Your task to perform on an android device: move an email to a new category in the gmail app Image 0: 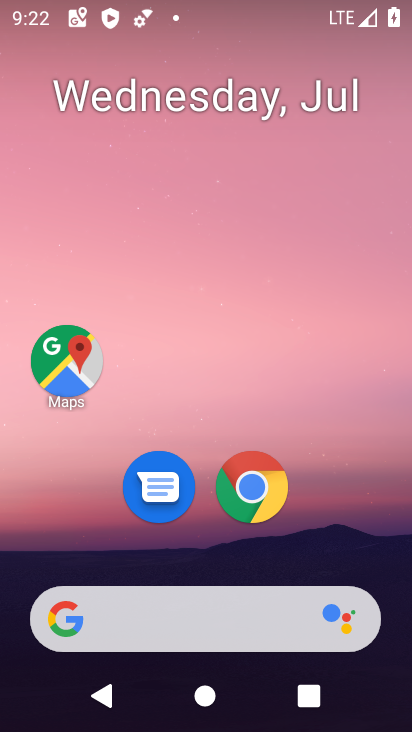
Step 0: drag from (223, 555) to (153, 85)
Your task to perform on an android device: move an email to a new category in the gmail app Image 1: 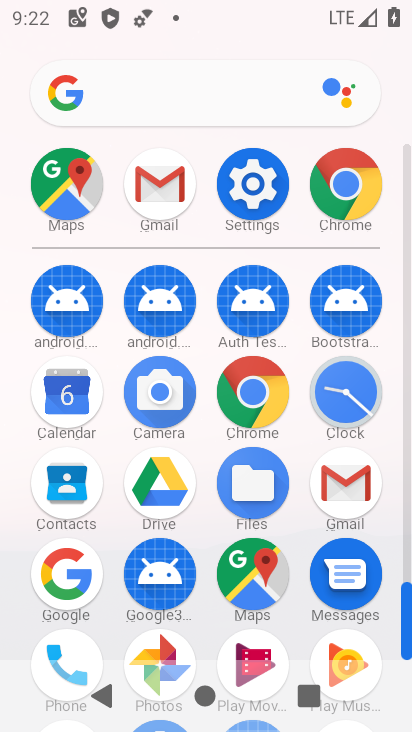
Step 1: click (360, 493)
Your task to perform on an android device: move an email to a new category in the gmail app Image 2: 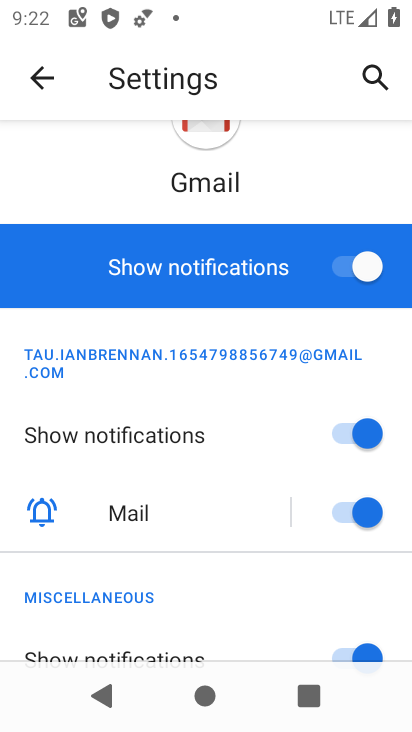
Step 2: click (51, 75)
Your task to perform on an android device: move an email to a new category in the gmail app Image 3: 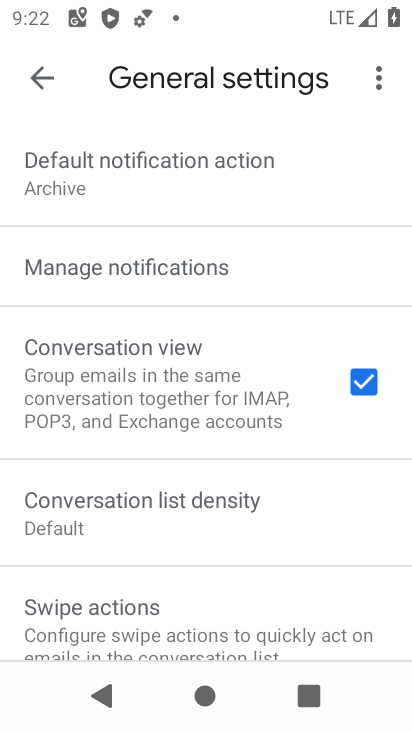
Step 3: click (51, 75)
Your task to perform on an android device: move an email to a new category in the gmail app Image 4: 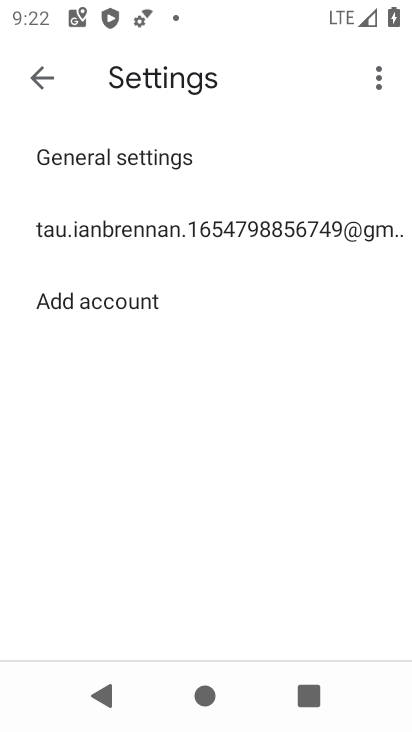
Step 4: click (51, 75)
Your task to perform on an android device: move an email to a new category in the gmail app Image 5: 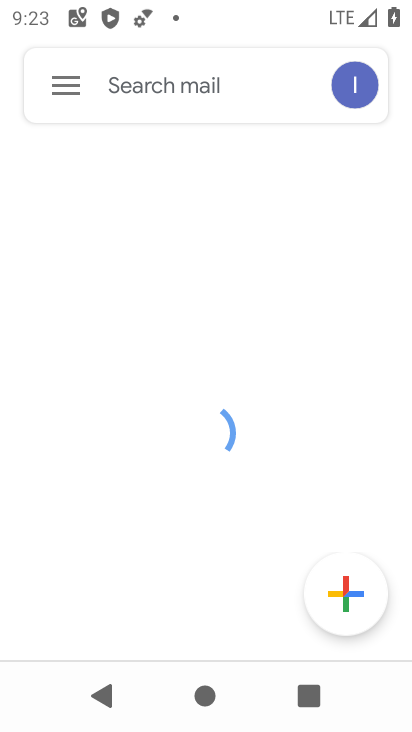
Step 5: task complete